Your task to perform on an android device: create a new album in the google photos Image 0: 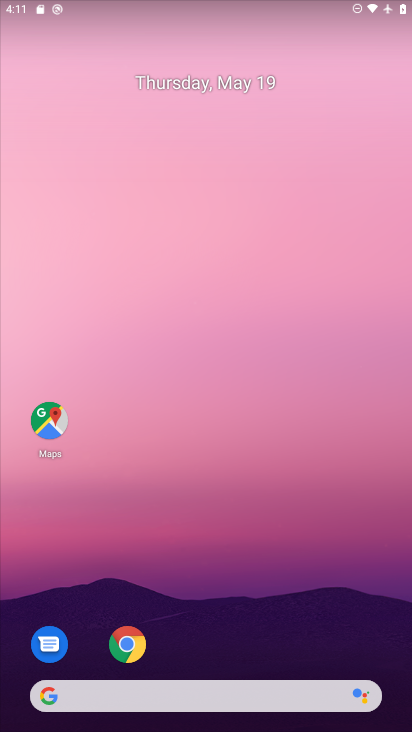
Step 0: drag from (264, 583) to (201, 5)
Your task to perform on an android device: create a new album in the google photos Image 1: 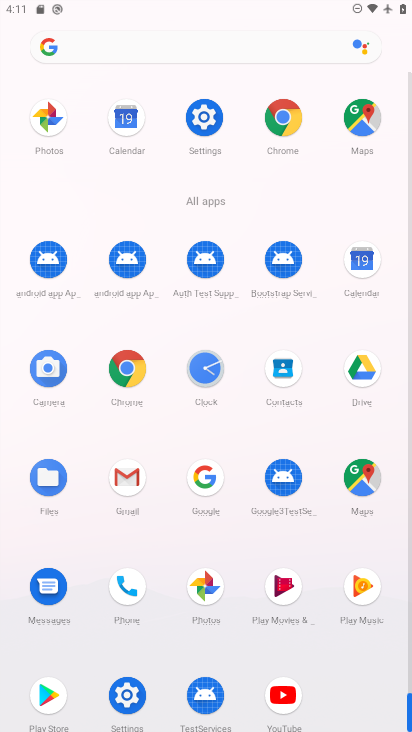
Step 1: drag from (11, 553) to (11, 252)
Your task to perform on an android device: create a new album in the google photos Image 2: 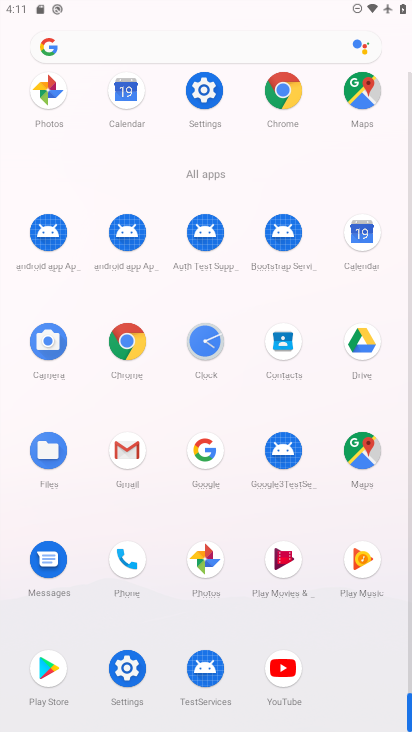
Step 2: click (202, 553)
Your task to perform on an android device: create a new album in the google photos Image 3: 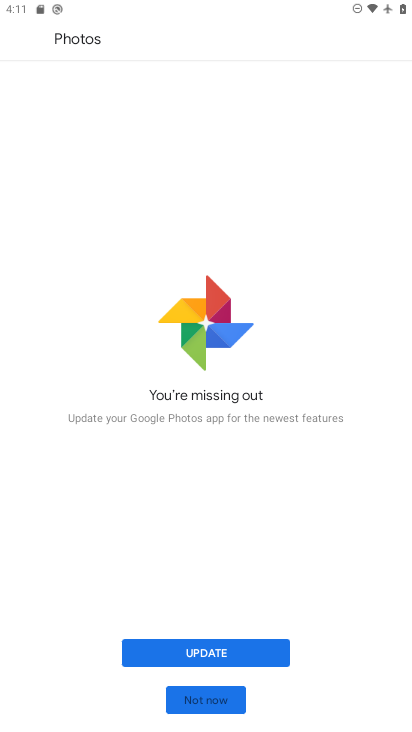
Step 3: click (230, 650)
Your task to perform on an android device: create a new album in the google photos Image 4: 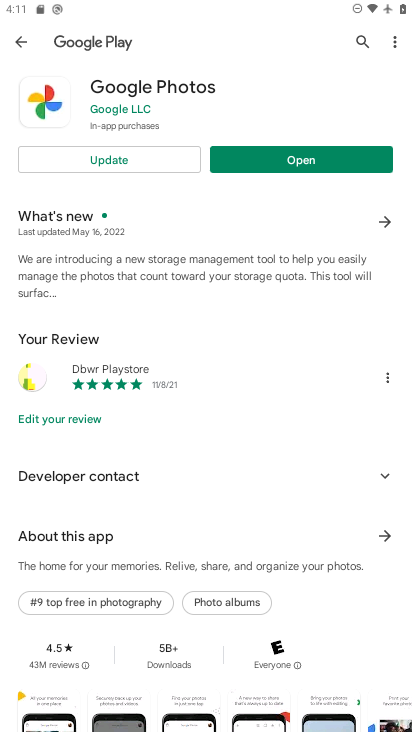
Step 4: click (168, 163)
Your task to perform on an android device: create a new album in the google photos Image 5: 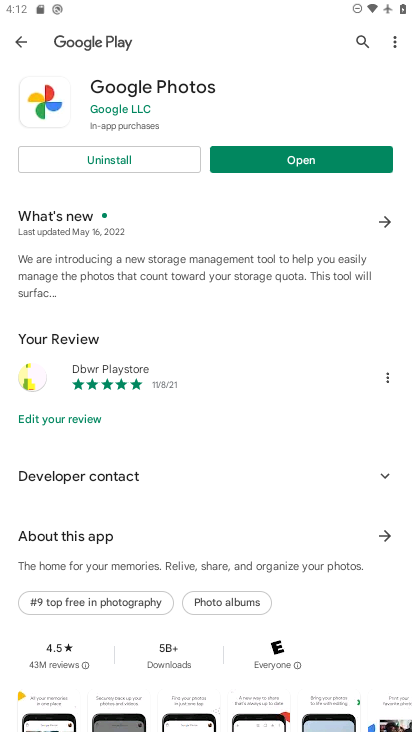
Step 5: click (265, 159)
Your task to perform on an android device: create a new album in the google photos Image 6: 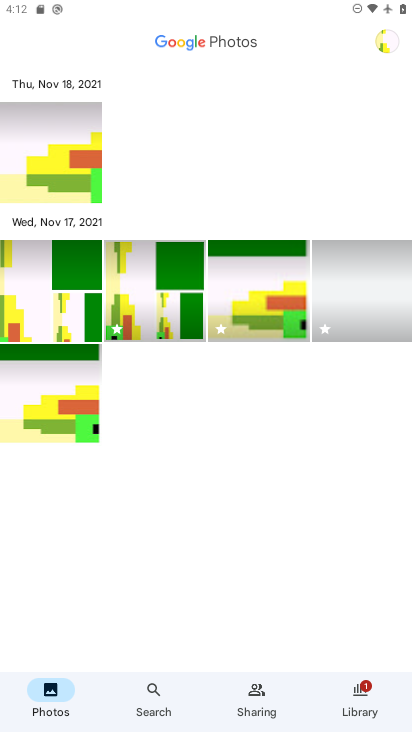
Step 6: click (239, 296)
Your task to perform on an android device: create a new album in the google photos Image 7: 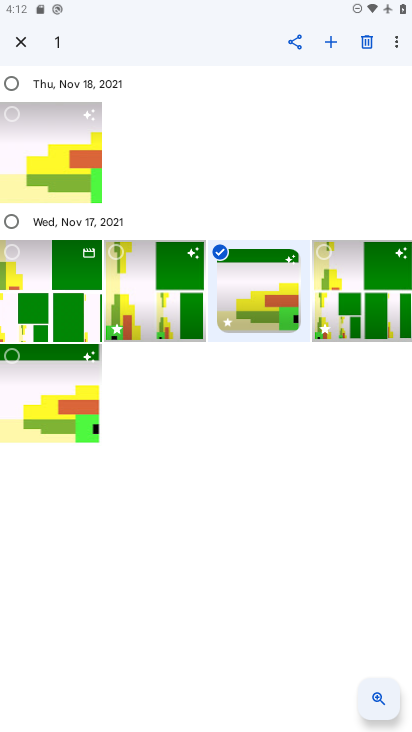
Step 7: click (326, 34)
Your task to perform on an android device: create a new album in the google photos Image 8: 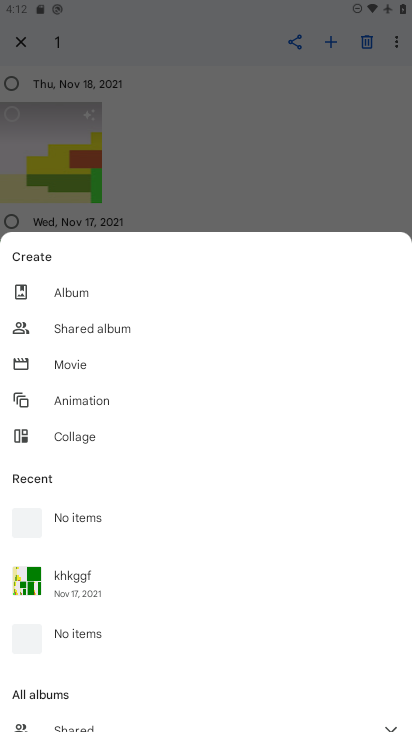
Step 8: click (79, 299)
Your task to perform on an android device: create a new album in the google photos Image 9: 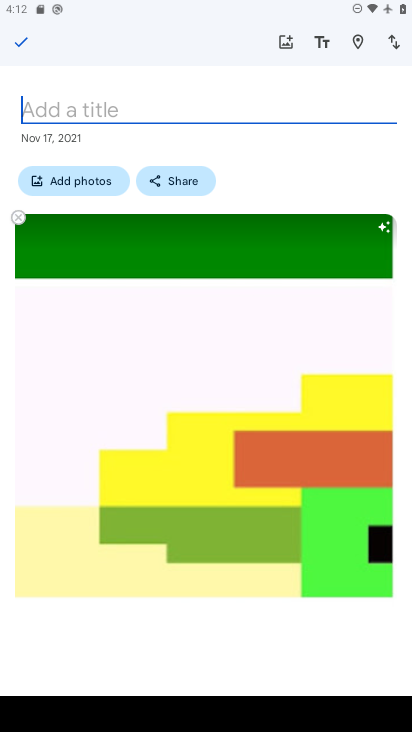
Step 9: type "DFGHJK"
Your task to perform on an android device: create a new album in the google photos Image 10: 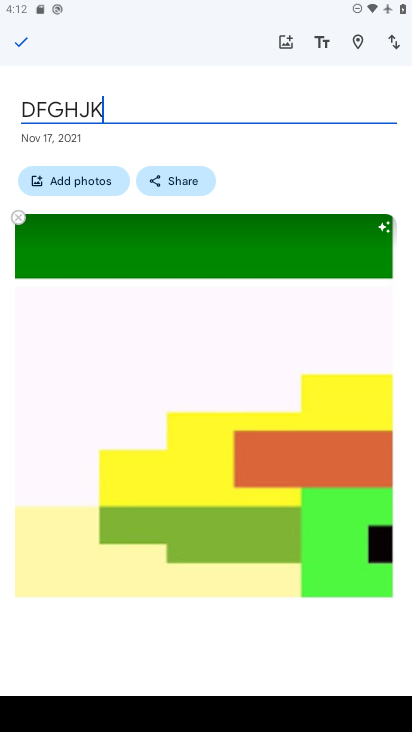
Step 10: type ""
Your task to perform on an android device: create a new album in the google photos Image 11: 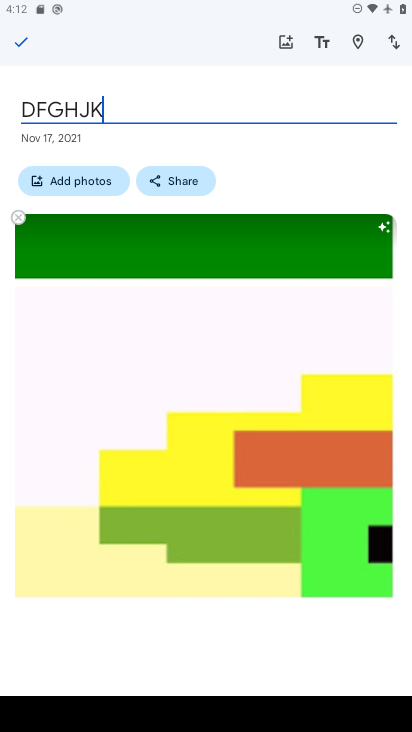
Step 11: click (16, 44)
Your task to perform on an android device: create a new album in the google photos Image 12: 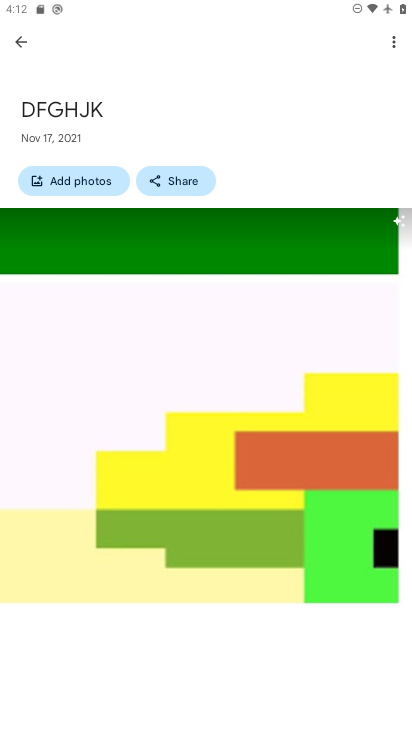
Step 12: task complete